Your task to perform on an android device: add a label to a message in the gmail app Image 0: 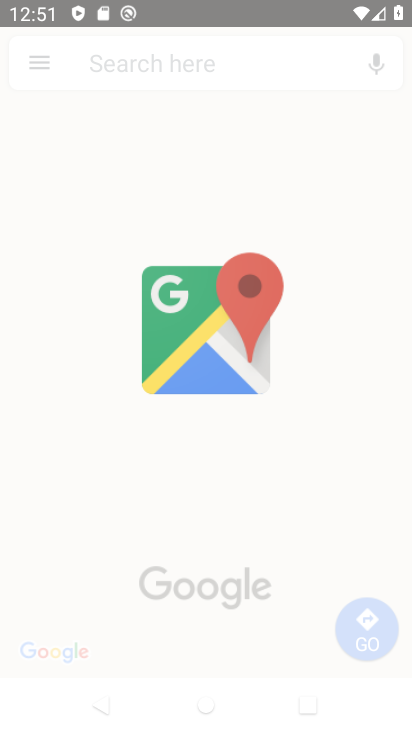
Step 0: click (190, 346)
Your task to perform on an android device: add a label to a message in the gmail app Image 1: 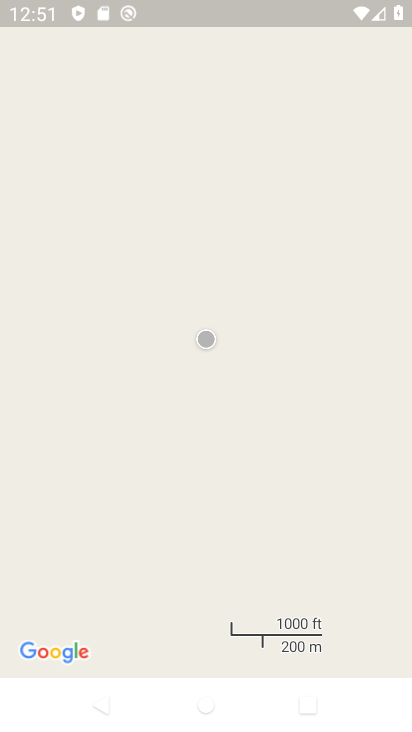
Step 1: press home button
Your task to perform on an android device: add a label to a message in the gmail app Image 2: 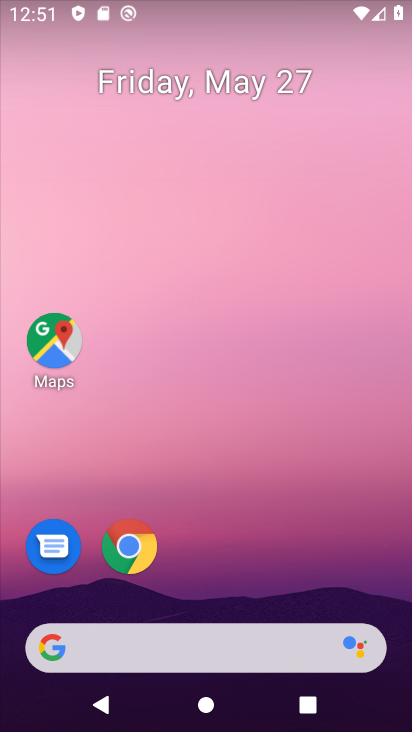
Step 2: drag from (316, 671) to (224, 21)
Your task to perform on an android device: add a label to a message in the gmail app Image 3: 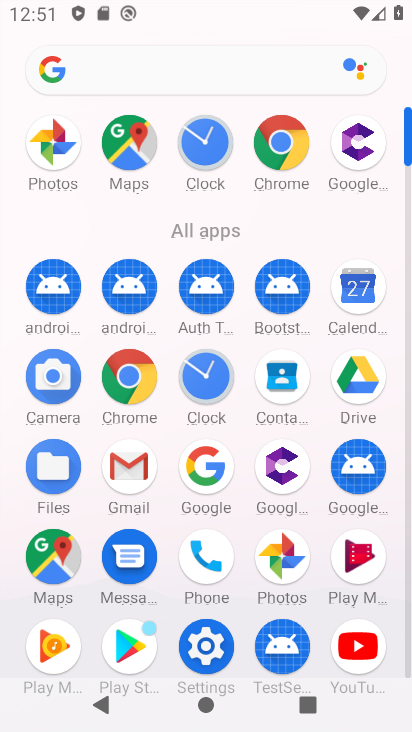
Step 3: click (136, 481)
Your task to perform on an android device: add a label to a message in the gmail app Image 4: 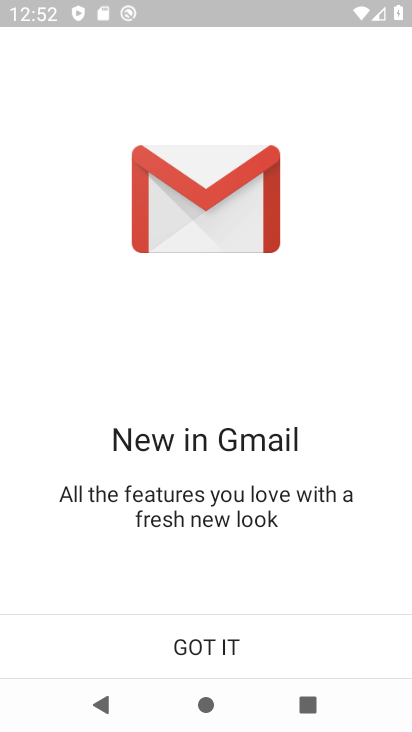
Step 4: click (220, 628)
Your task to perform on an android device: add a label to a message in the gmail app Image 5: 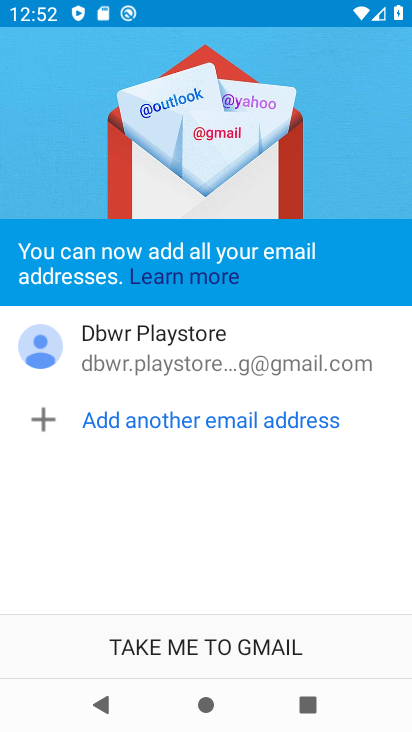
Step 5: click (216, 654)
Your task to perform on an android device: add a label to a message in the gmail app Image 6: 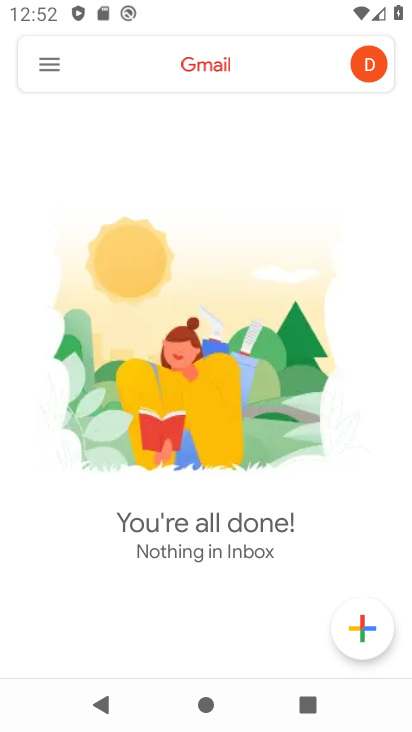
Step 6: click (42, 70)
Your task to perform on an android device: add a label to a message in the gmail app Image 7: 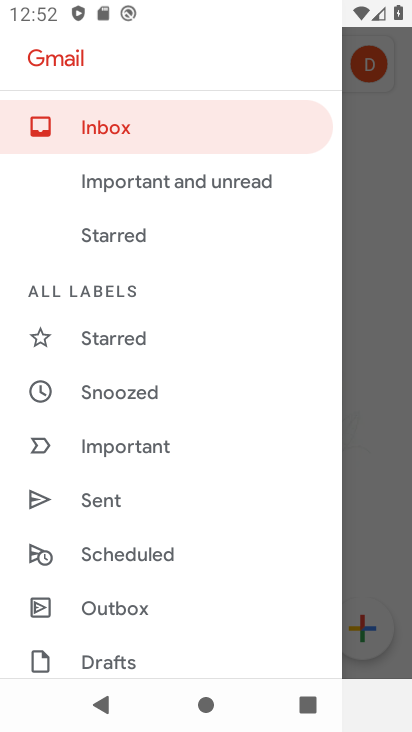
Step 7: drag from (103, 604) to (195, 162)
Your task to perform on an android device: add a label to a message in the gmail app Image 8: 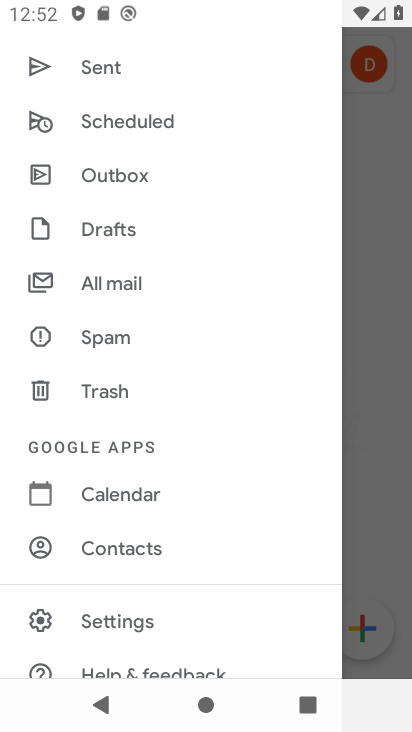
Step 8: click (151, 623)
Your task to perform on an android device: add a label to a message in the gmail app Image 9: 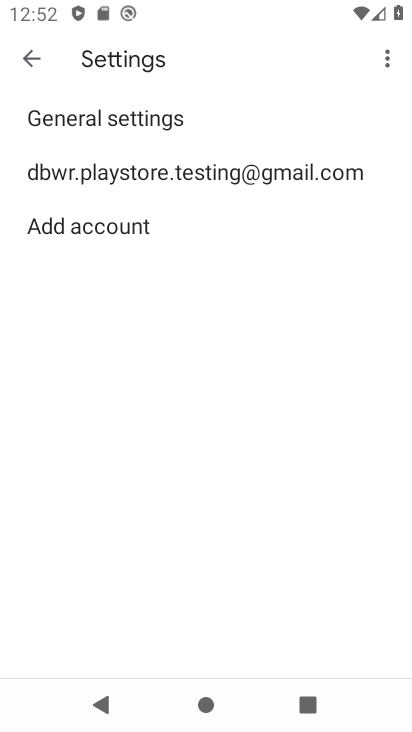
Step 9: click (188, 177)
Your task to perform on an android device: add a label to a message in the gmail app Image 10: 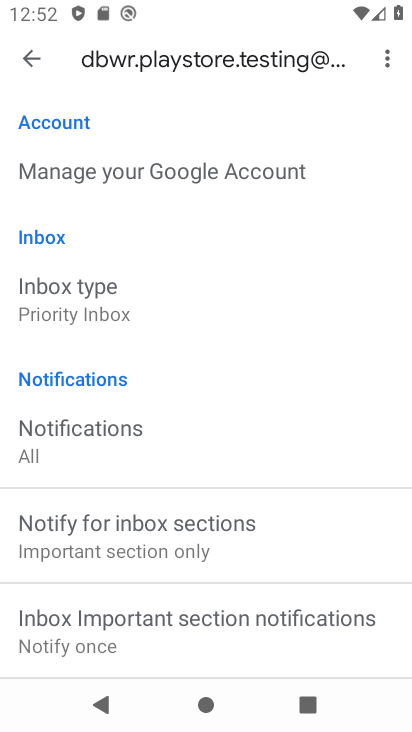
Step 10: drag from (189, 491) to (278, 177)
Your task to perform on an android device: add a label to a message in the gmail app Image 11: 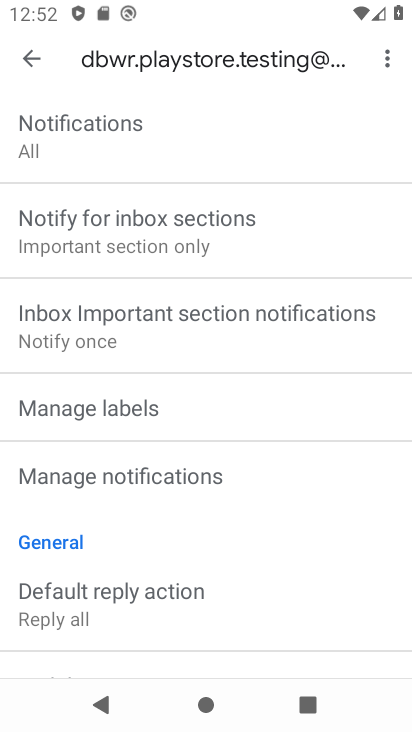
Step 11: click (116, 417)
Your task to perform on an android device: add a label to a message in the gmail app Image 12: 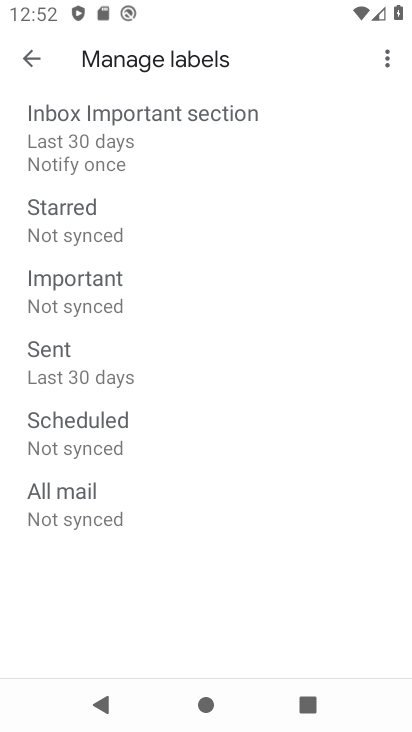
Step 12: click (143, 150)
Your task to perform on an android device: add a label to a message in the gmail app Image 13: 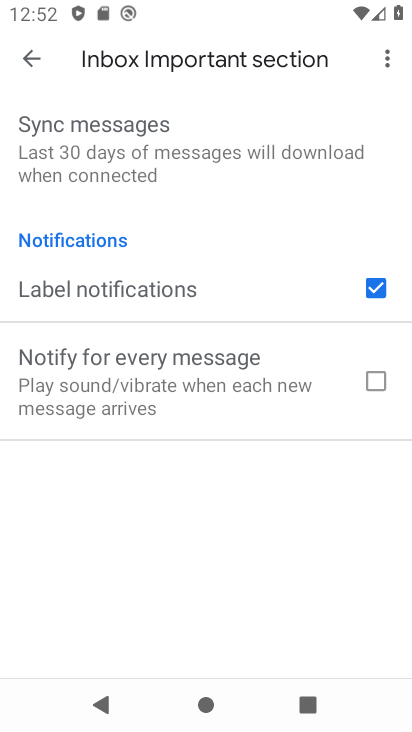
Step 13: task complete